Your task to perform on an android device: open a new tab in the chrome app Image 0: 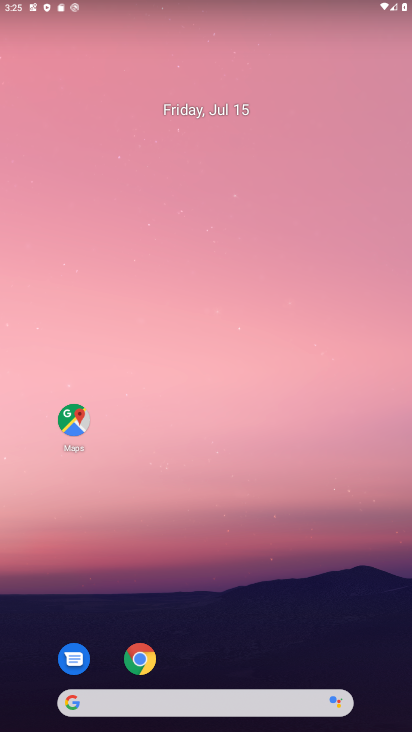
Step 0: drag from (277, 687) to (274, 333)
Your task to perform on an android device: open a new tab in the chrome app Image 1: 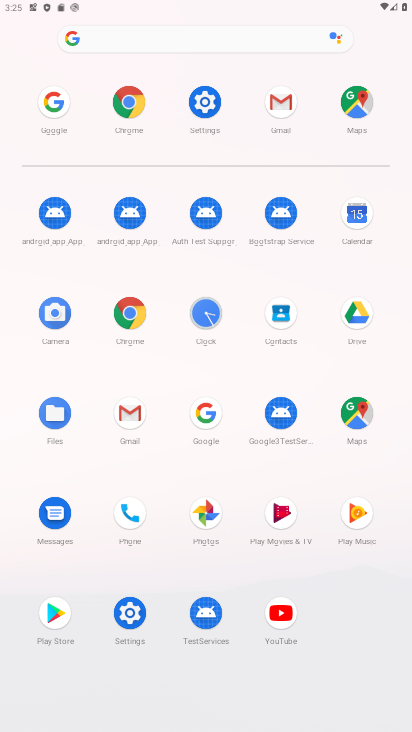
Step 1: click (130, 318)
Your task to perform on an android device: open a new tab in the chrome app Image 2: 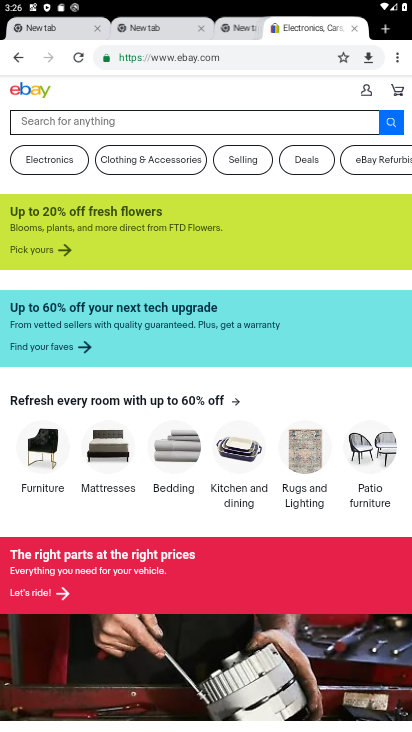
Step 2: press home button
Your task to perform on an android device: open a new tab in the chrome app Image 3: 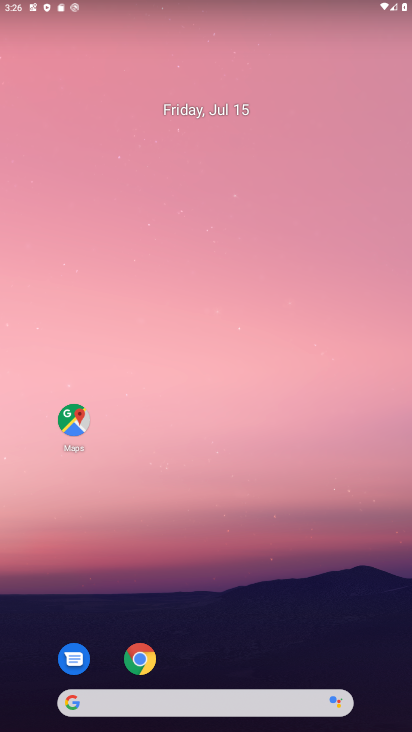
Step 3: drag from (158, 695) to (128, 247)
Your task to perform on an android device: open a new tab in the chrome app Image 4: 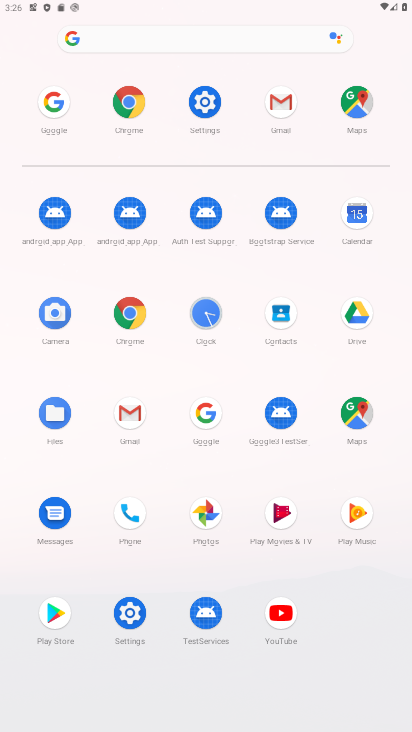
Step 4: click (127, 319)
Your task to perform on an android device: open a new tab in the chrome app Image 5: 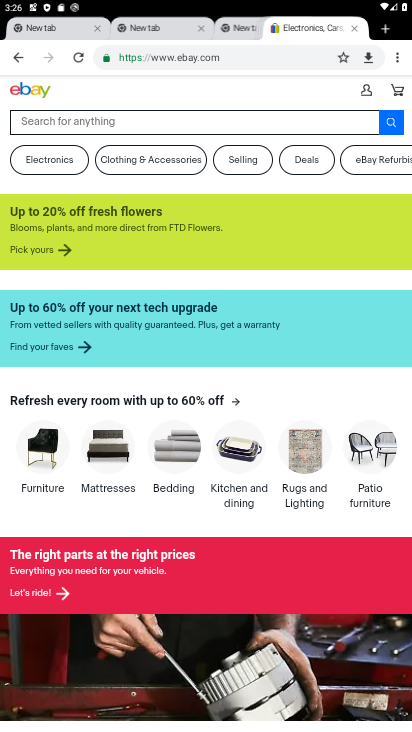
Step 5: click (399, 53)
Your task to perform on an android device: open a new tab in the chrome app Image 6: 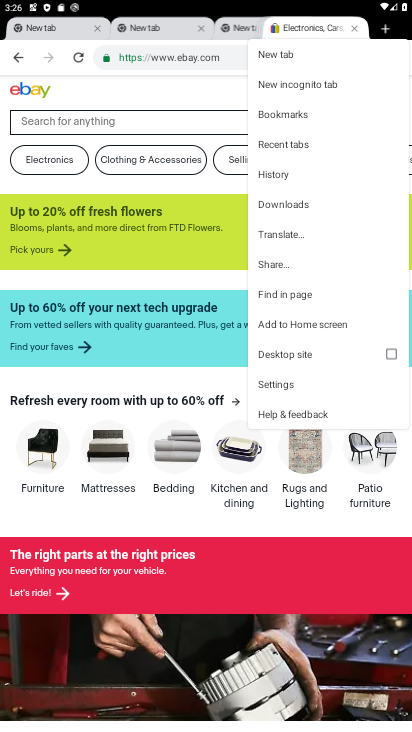
Step 6: click (275, 52)
Your task to perform on an android device: open a new tab in the chrome app Image 7: 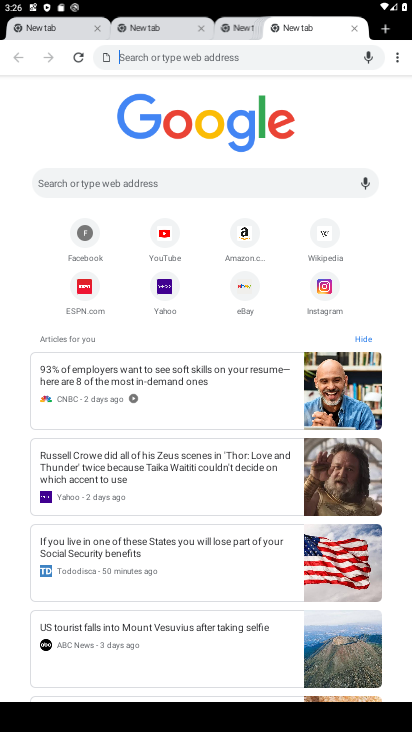
Step 7: task complete